Your task to perform on an android device: check data usage Image 0: 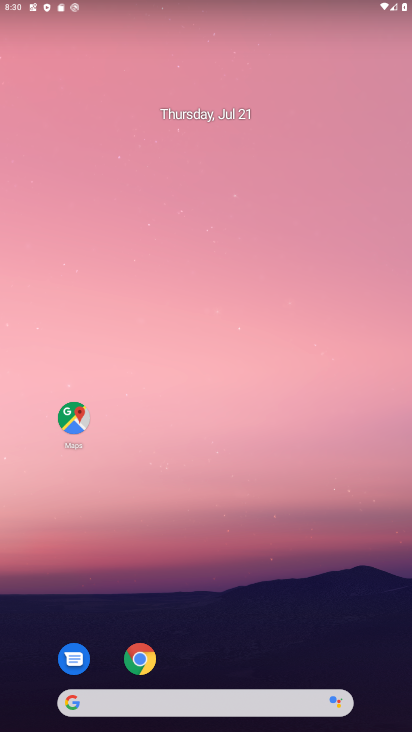
Step 0: drag from (215, 659) to (264, 35)
Your task to perform on an android device: check data usage Image 1: 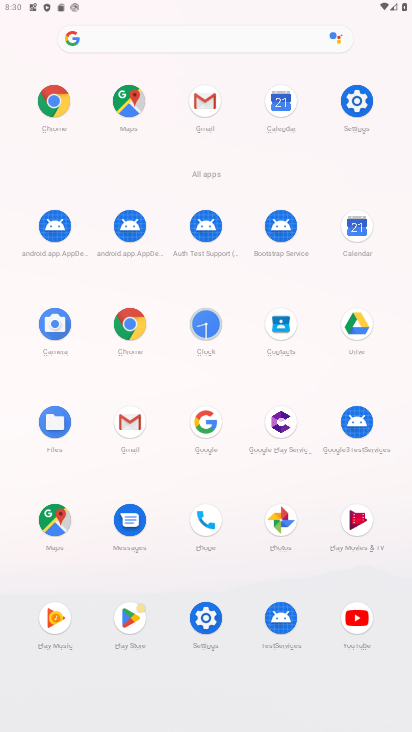
Step 1: press home button
Your task to perform on an android device: check data usage Image 2: 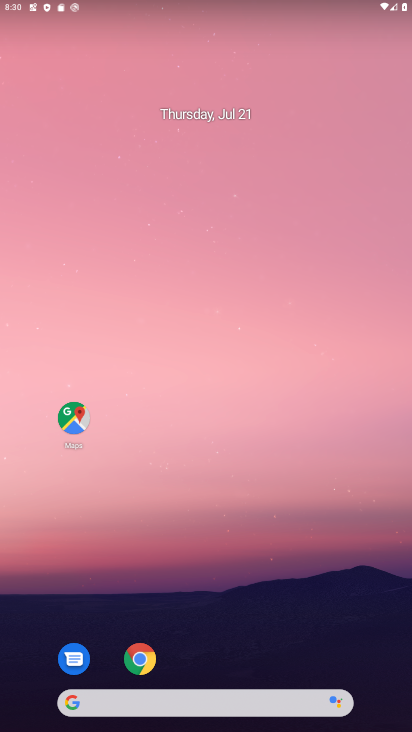
Step 2: drag from (207, 613) to (269, 123)
Your task to perform on an android device: check data usage Image 3: 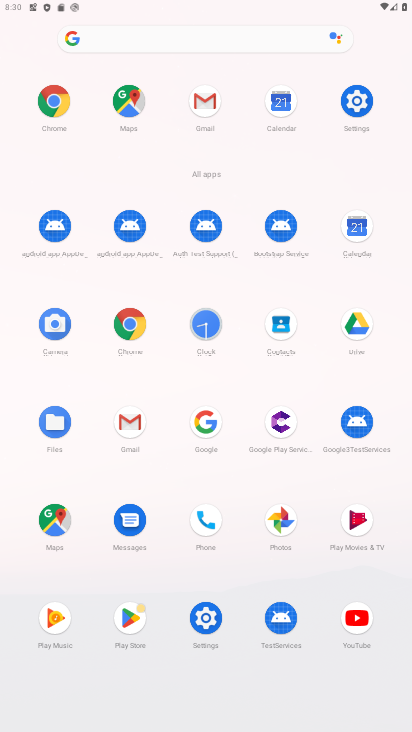
Step 3: click (352, 97)
Your task to perform on an android device: check data usage Image 4: 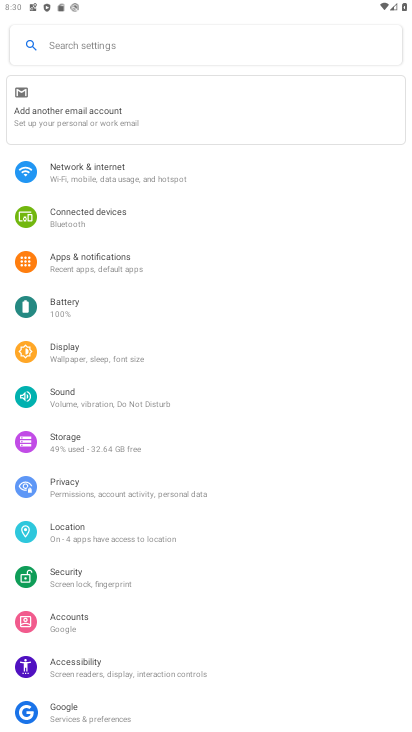
Step 4: click (135, 169)
Your task to perform on an android device: check data usage Image 5: 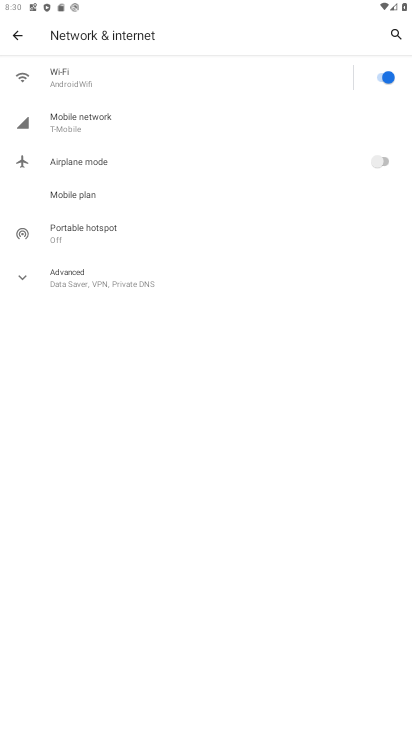
Step 5: click (96, 118)
Your task to perform on an android device: check data usage Image 6: 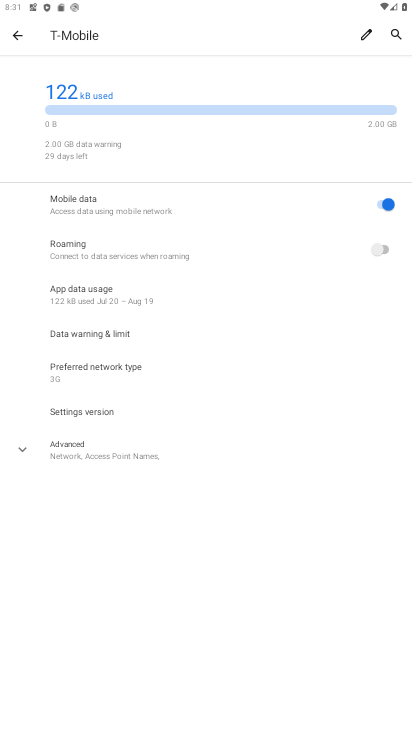
Step 6: click (108, 297)
Your task to perform on an android device: check data usage Image 7: 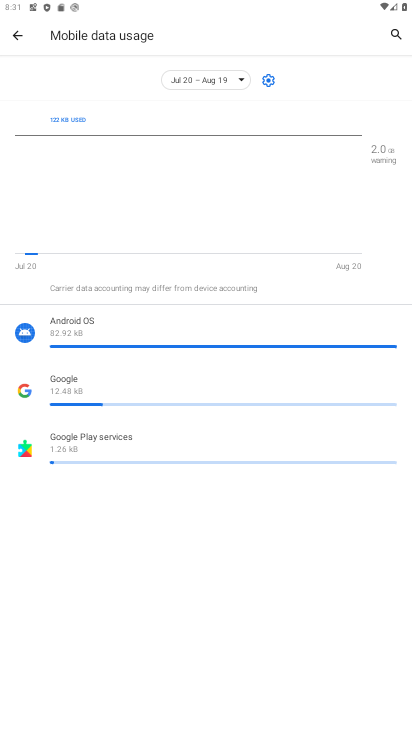
Step 7: task complete